Your task to perform on an android device: turn on data saver in the chrome app Image 0: 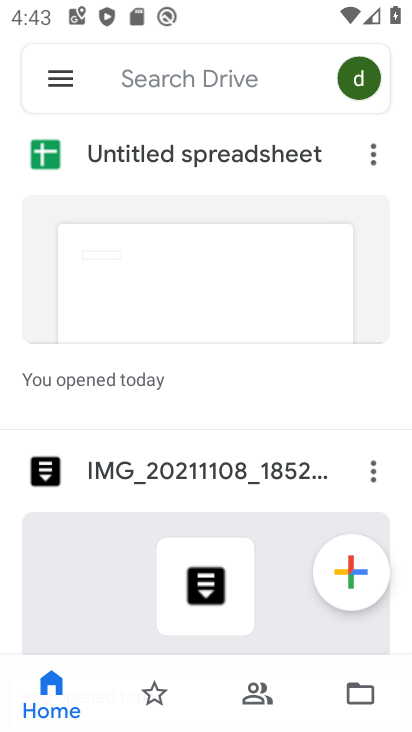
Step 0: press home button
Your task to perform on an android device: turn on data saver in the chrome app Image 1: 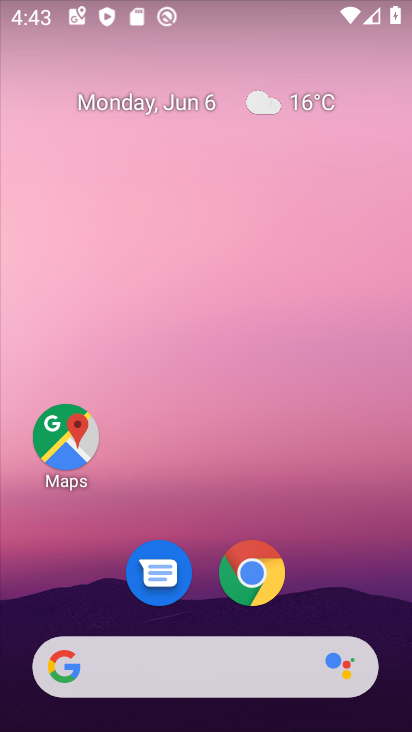
Step 1: click (254, 573)
Your task to perform on an android device: turn on data saver in the chrome app Image 2: 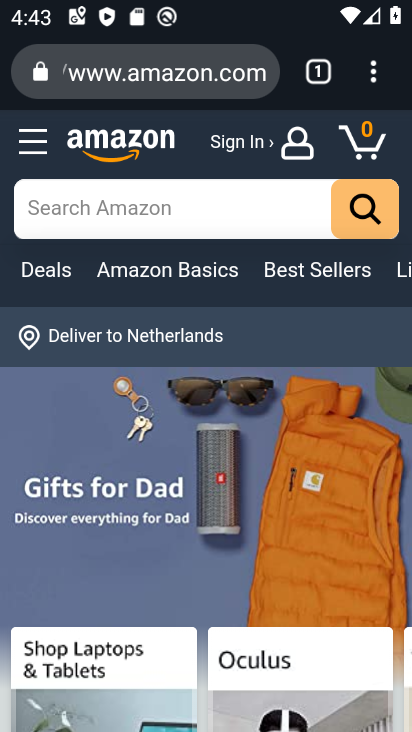
Step 2: click (374, 75)
Your task to perform on an android device: turn on data saver in the chrome app Image 3: 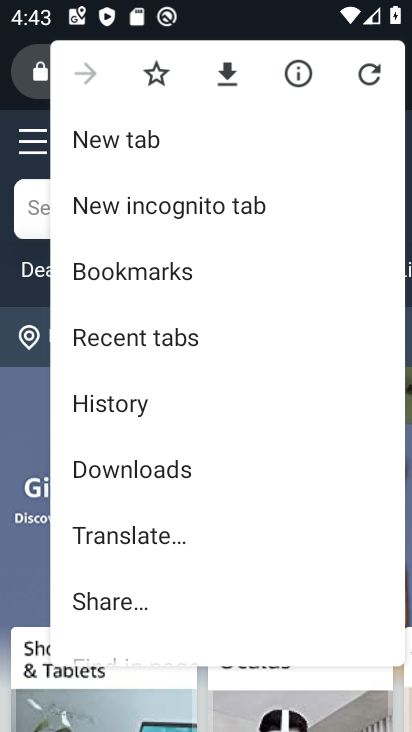
Step 3: drag from (147, 499) to (188, 389)
Your task to perform on an android device: turn on data saver in the chrome app Image 4: 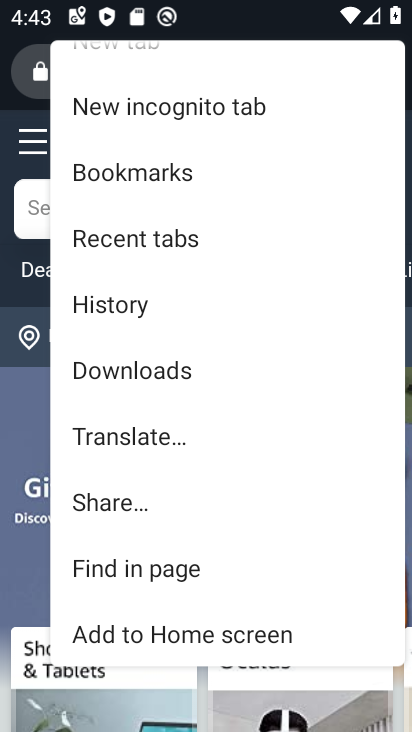
Step 4: drag from (133, 542) to (215, 441)
Your task to perform on an android device: turn on data saver in the chrome app Image 5: 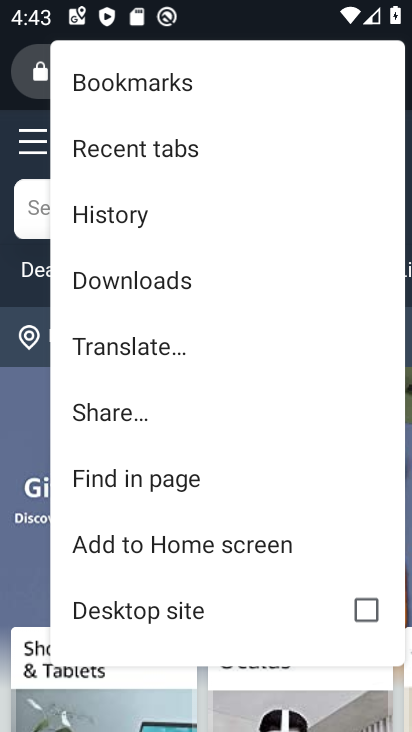
Step 5: drag from (157, 579) to (219, 459)
Your task to perform on an android device: turn on data saver in the chrome app Image 6: 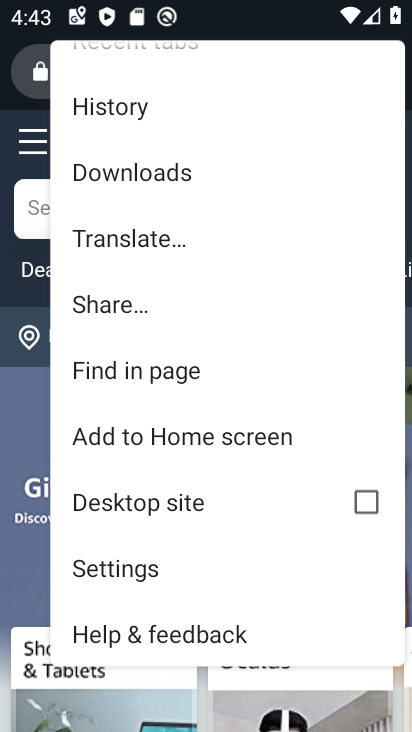
Step 6: click (146, 570)
Your task to perform on an android device: turn on data saver in the chrome app Image 7: 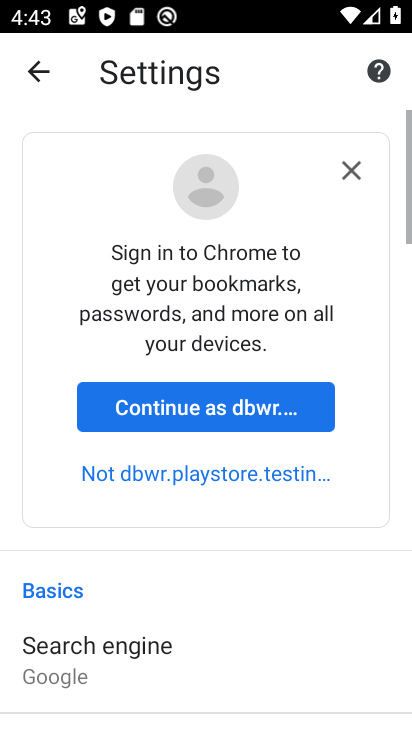
Step 7: drag from (182, 628) to (246, 419)
Your task to perform on an android device: turn on data saver in the chrome app Image 8: 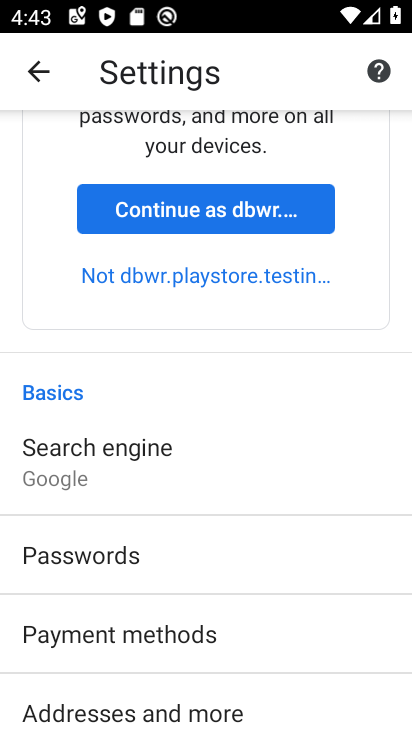
Step 8: drag from (237, 634) to (327, 446)
Your task to perform on an android device: turn on data saver in the chrome app Image 9: 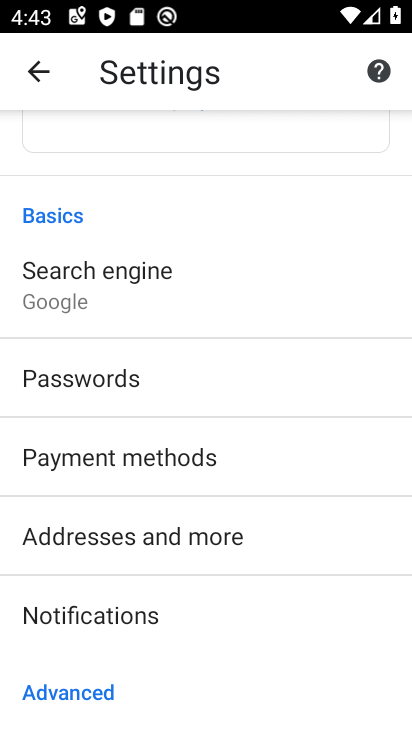
Step 9: drag from (231, 644) to (297, 426)
Your task to perform on an android device: turn on data saver in the chrome app Image 10: 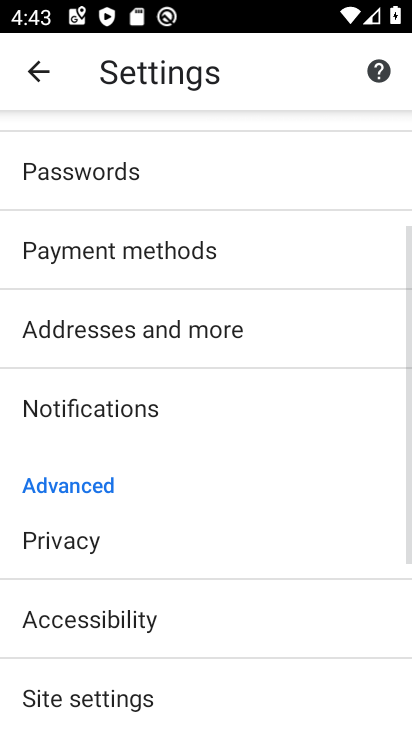
Step 10: drag from (210, 646) to (280, 460)
Your task to perform on an android device: turn on data saver in the chrome app Image 11: 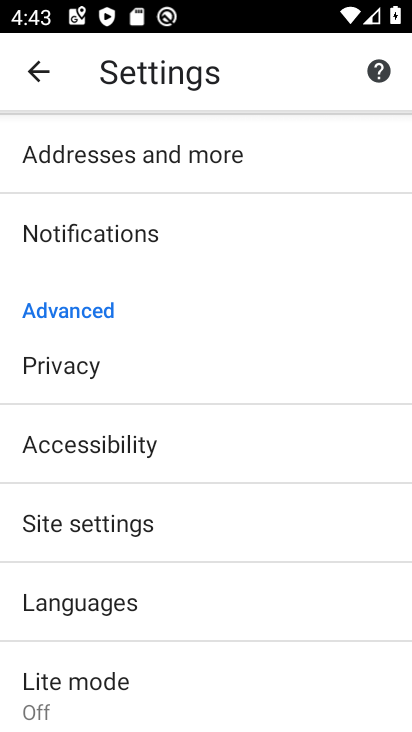
Step 11: drag from (212, 663) to (278, 521)
Your task to perform on an android device: turn on data saver in the chrome app Image 12: 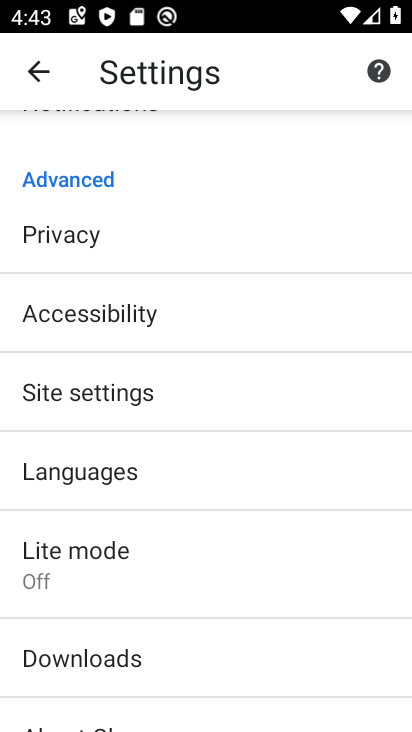
Step 12: click (161, 560)
Your task to perform on an android device: turn on data saver in the chrome app Image 13: 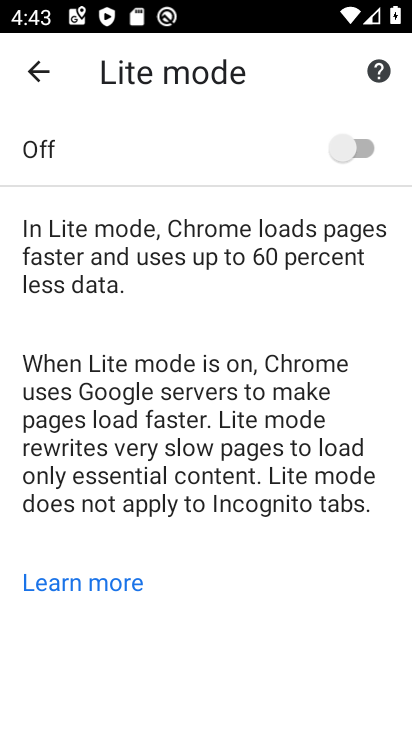
Step 13: click (360, 144)
Your task to perform on an android device: turn on data saver in the chrome app Image 14: 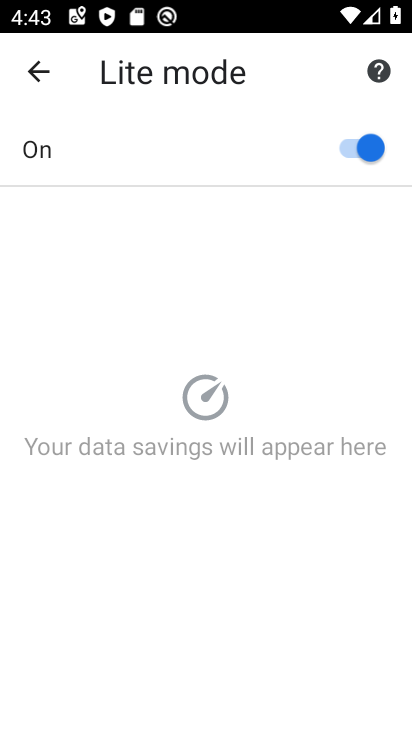
Step 14: task complete